Your task to perform on an android device: Search for flights from Chicago to London Image 0: 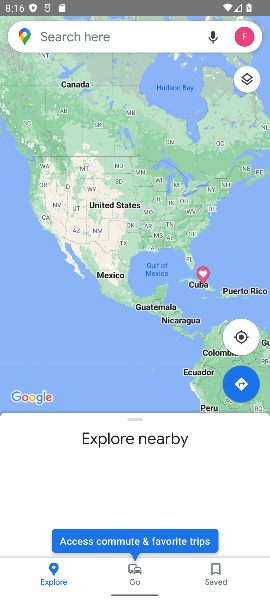
Step 0: press home button
Your task to perform on an android device: Search for flights from Chicago to London Image 1: 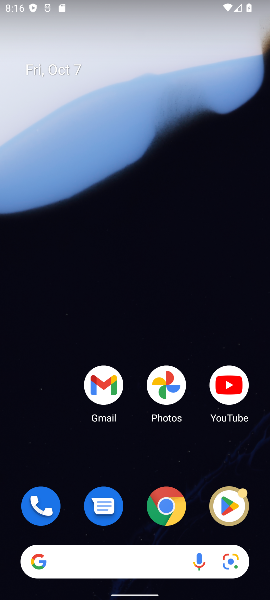
Step 1: click (162, 499)
Your task to perform on an android device: Search for flights from Chicago to London Image 2: 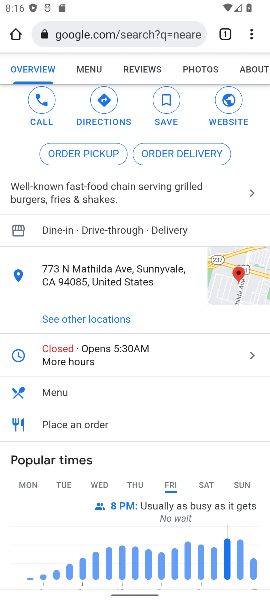
Step 2: click (185, 32)
Your task to perform on an android device: Search for flights from Chicago to London Image 3: 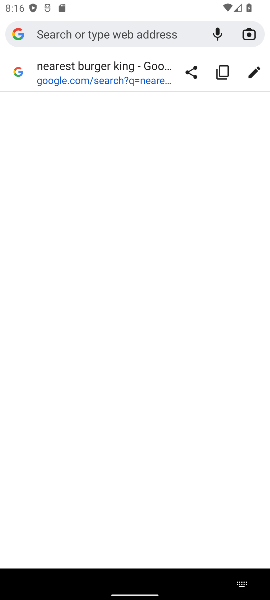
Step 3: type "flights from Chicago to London"
Your task to perform on an android device: Search for flights from Chicago to London Image 4: 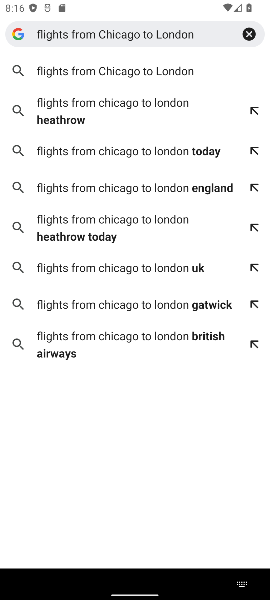
Step 4: click (134, 70)
Your task to perform on an android device: Search for flights from Chicago to London Image 5: 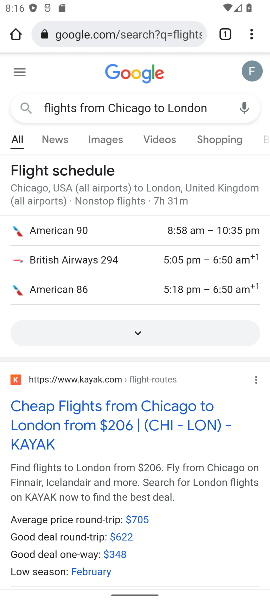
Step 5: click (141, 334)
Your task to perform on an android device: Search for flights from Chicago to London Image 6: 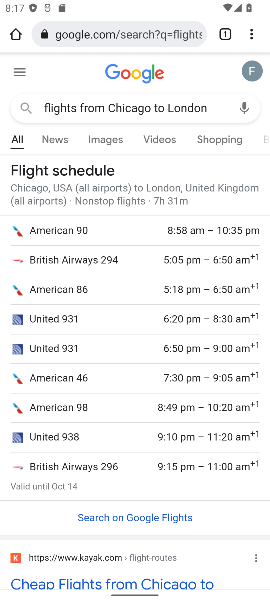
Step 6: task complete